Your task to perform on an android device: Open Chrome and go to settings Image 0: 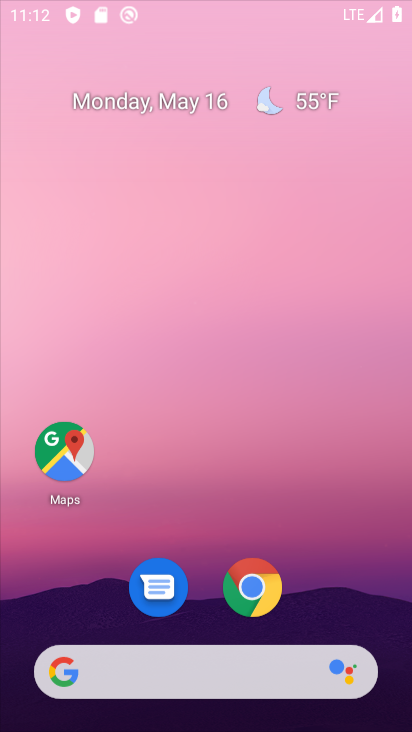
Step 0: click (252, 198)
Your task to perform on an android device: Open Chrome and go to settings Image 1: 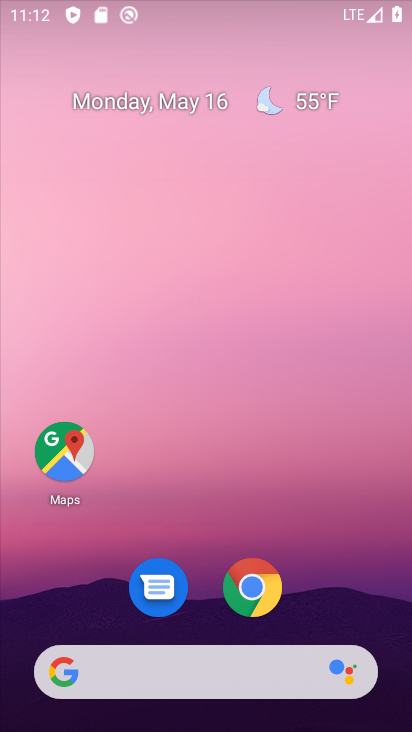
Step 1: drag from (218, 620) to (273, 152)
Your task to perform on an android device: Open Chrome and go to settings Image 2: 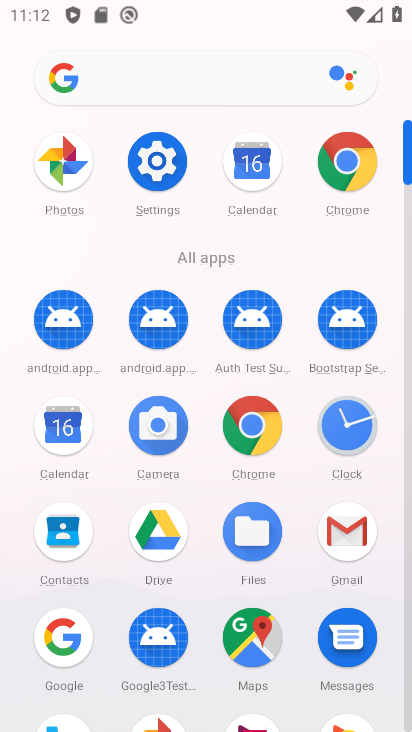
Step 2: click (337, 158)
Your task to perform on an android device: Open Chrome and go to settings Image 3: 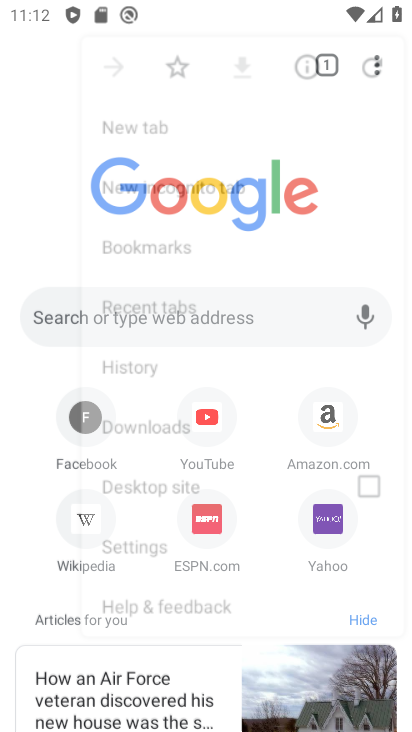
Step 3: drag from (276, 536) to (303, 165)
Your task to perform on an android device: Open Chrome and go to settings Image 4: 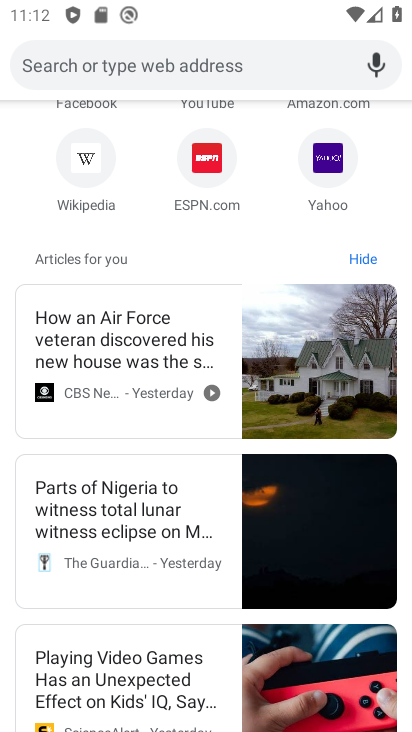
Step 4: drag from (301, 152) to (376, 620)
Your task to perform on an android device: Open Chrome and go to settings Image 5: 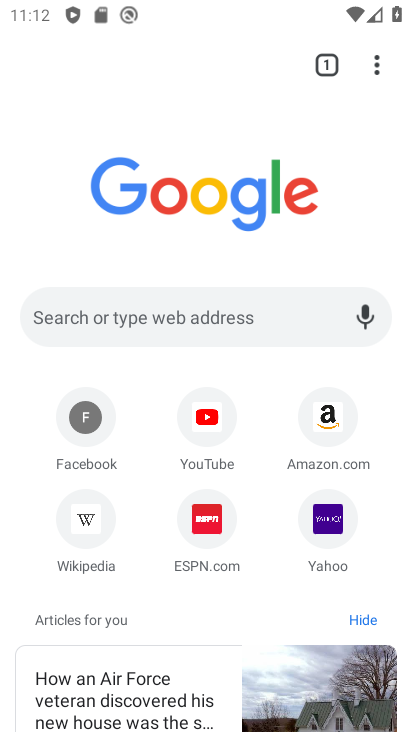
Step 5: click (380, 64)
Your task to perform on an android device: Open Chrome and go to settings Image 6: 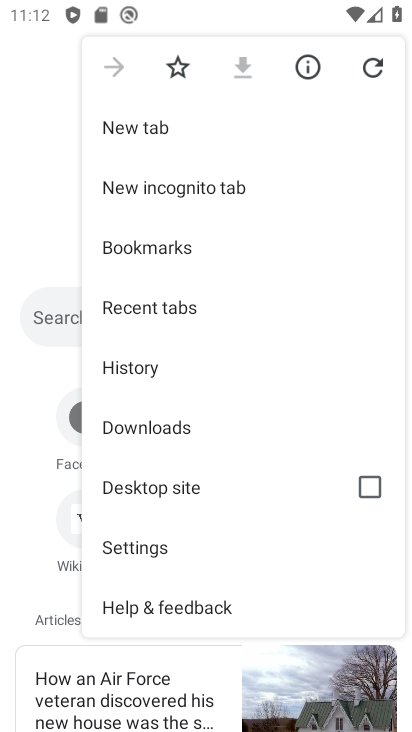
Step 6: click (217, 545)
Your task to perform on an android device: Open Chrome and go to settings Image 7: 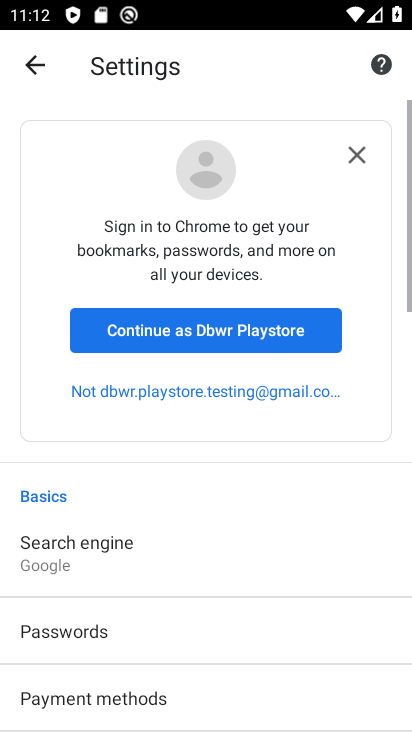
Step 7: drag from (215, 543) to (210, 109)
Your task to perform on an android device: Open Chrome and go to settings Image 8: 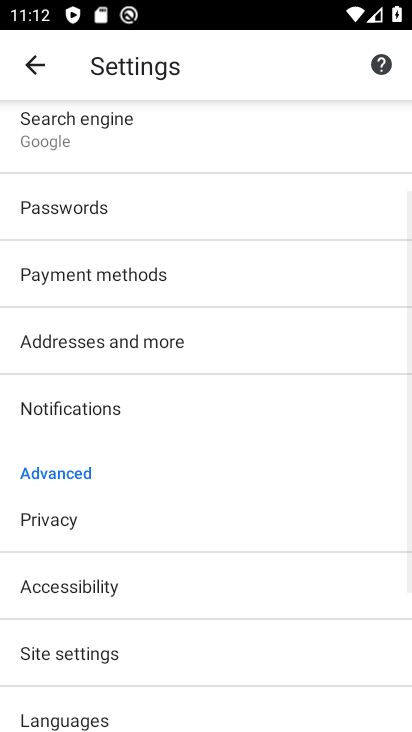
Step 8: click (316, 206)
Your task to perform on an android device: Open Chrome and go to settings Image 9: 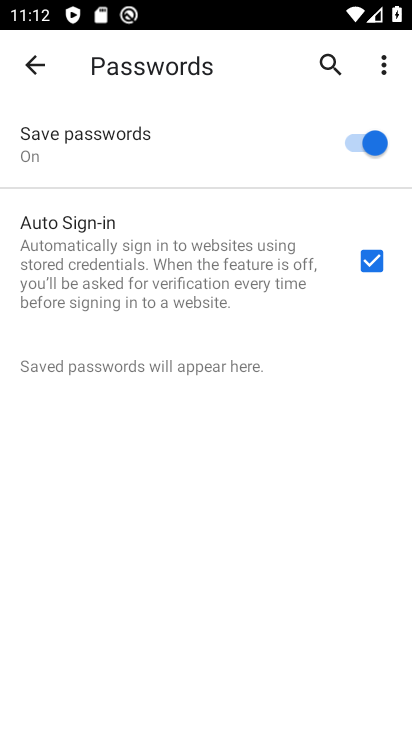
Step 9: task complete